Your task to perform on an android device: Open notification settings Image 0: 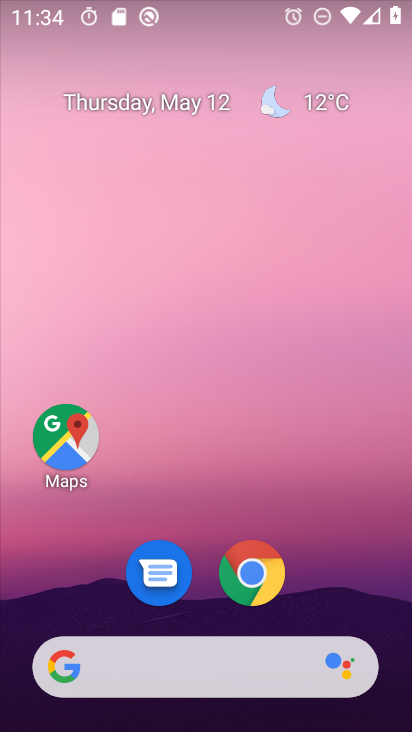
Step 0: click (376, 277)
Your task to perform on an android device: Open notification settings Image 1: 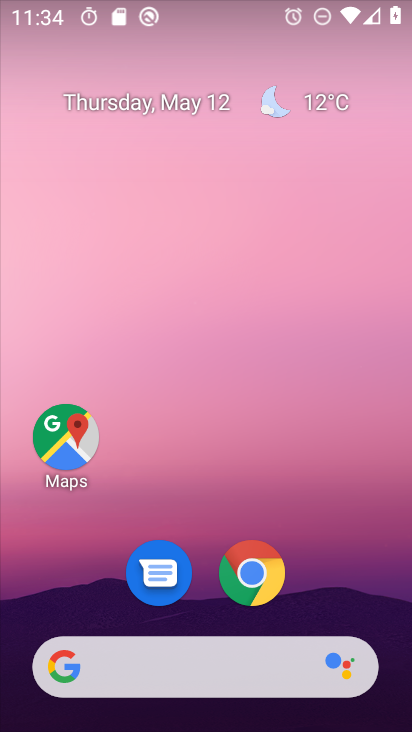
Step 1: drag from (393, 649) to (350, 200)
Your task to perform on an android device: Open notification settings Image 2: 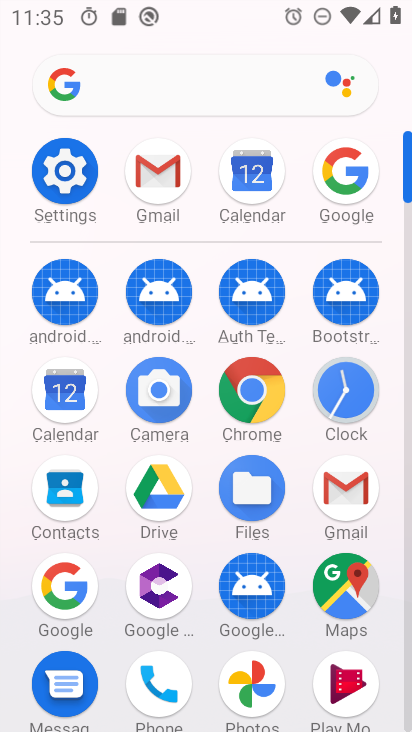
Step 2: click (71, 190)
Your task to perform on an android device: Open notification settings Image 3: 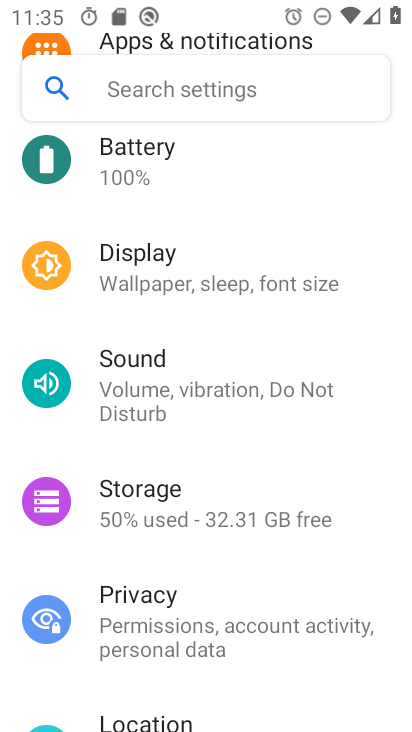
Step 3: click (186, 44)
Your task to perform on an android device: Open notification settings Image 4: 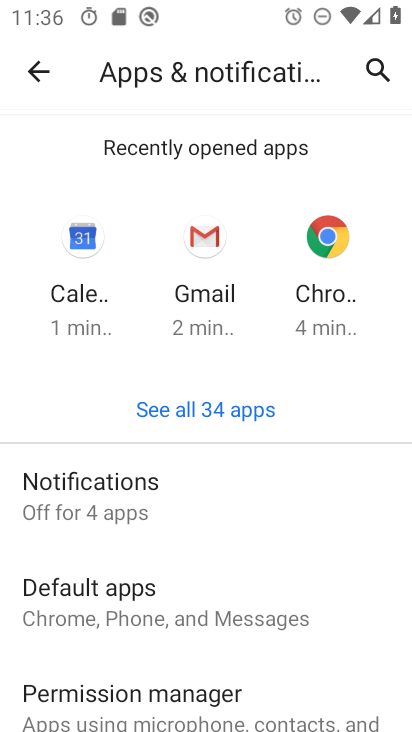
Step 4: click (68, 494)
Your task to perform on an android device: Open notification settings Image 5: 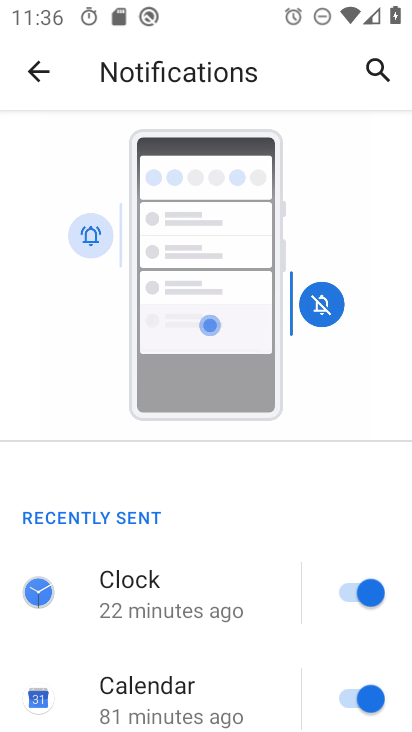
Step 5: task complete